Your task to perform on an android device: Open network settings Image 0: 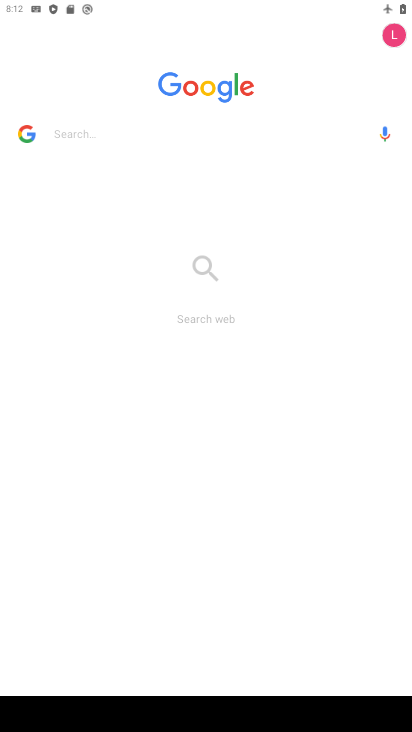
Step 0: press home button
Your task to perform on an android device: Open network settings Image 1: 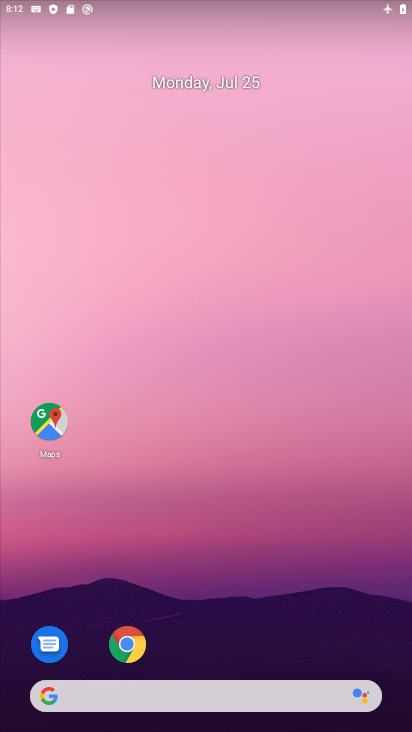
Step 1: drag from (256, 648) to (270, 141)
Your task to perform on an android device: Open network settings Image 2: 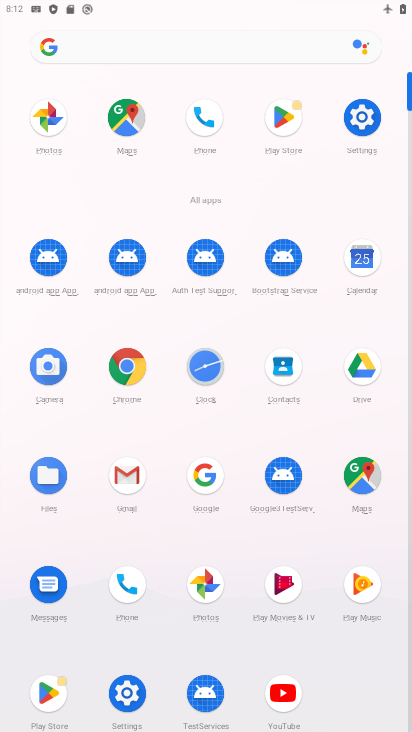
Step 2: click (361, 110)
Your task to perform on an android device: Open network settings Image 3: 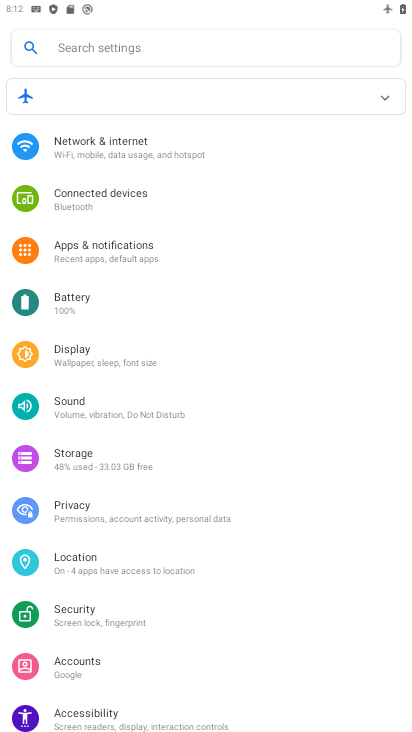
Step 3: click (121, 144)
Your task to perform on an android device: Open network settings Image 4: 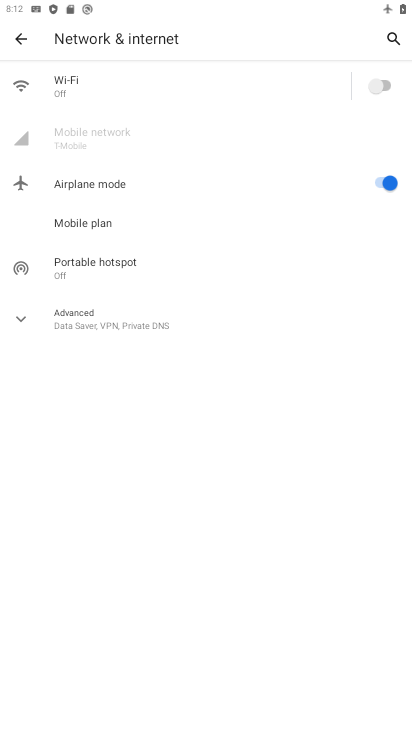
Step 4: task complete